Your task to perform on an android device: toggle wifi Image 0: 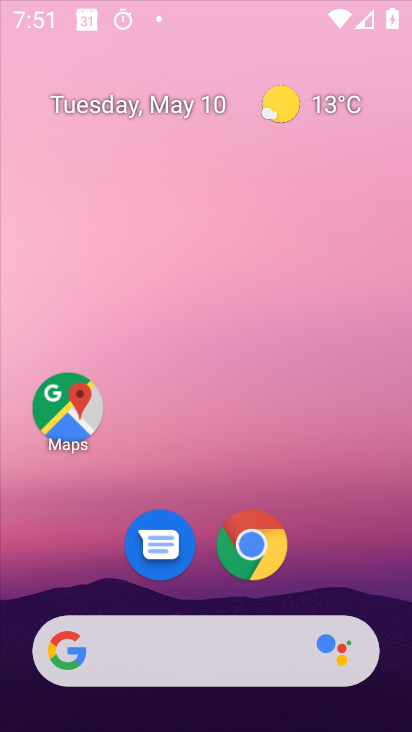
Step 0: press home button
Your task to perform on an android device: toggle wifi Image 1: 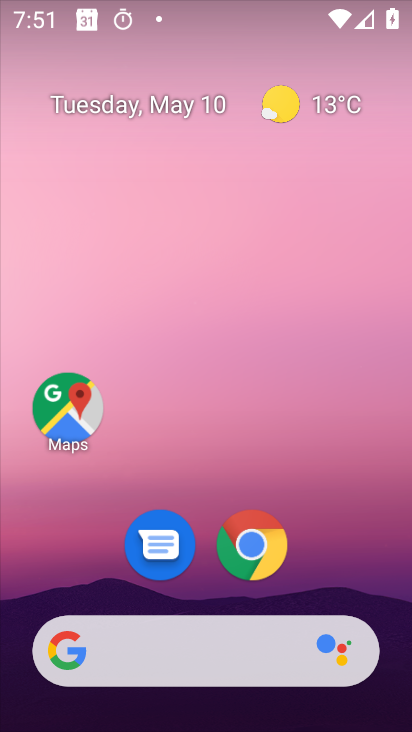
Step 1: drag from (206, 3) to (207, 539)
Your task to perform on an android device: toggle wifi Image 2: 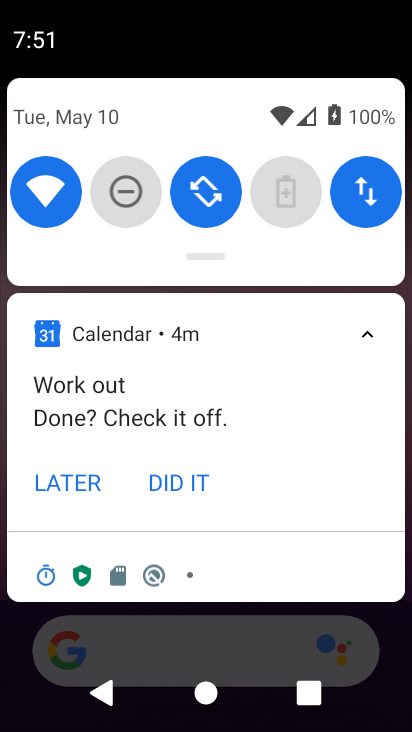
Step 2: click (48, 196)
Your task to perform on an android device: toggle wifi Image 3: 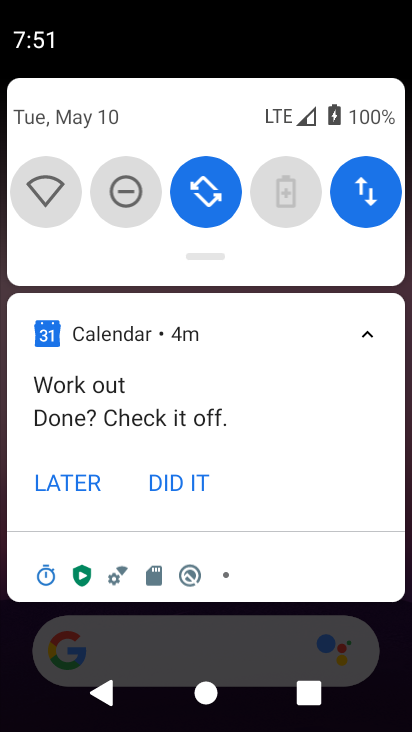
Step 3: task complete